Your task to perform on an android device: visit the assistant section in the google photos Image 0: 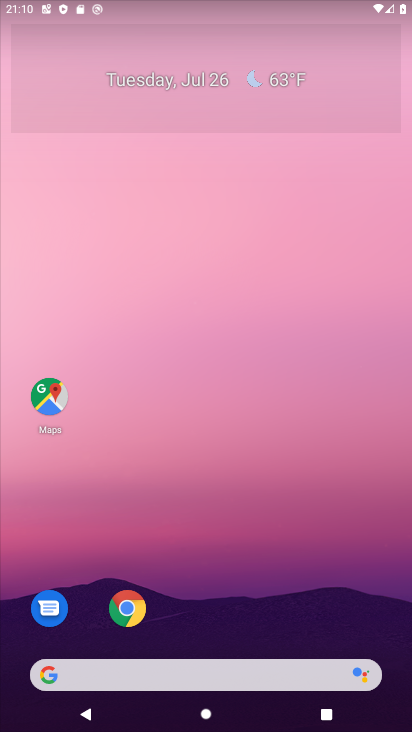
Step 0: drag from (144, 520) to (301, 214)
Your task to perform on an android device: visit the assistant section in the google photos Image 1: 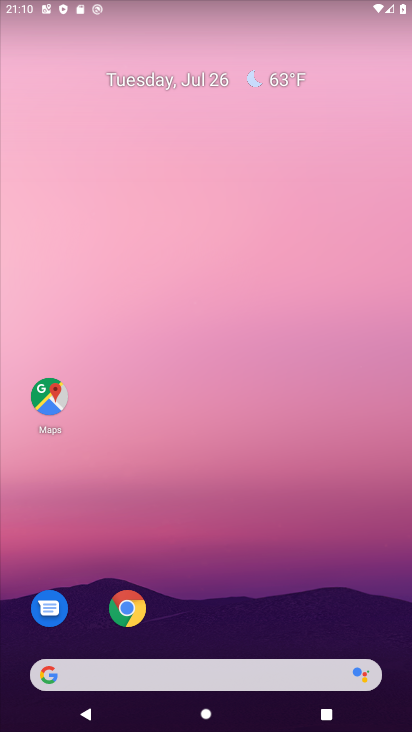
Step 1: drag from (74, 615) to (330, 141)
Your task to perform on an android device: visit the assistant section in the google photos Image 2: 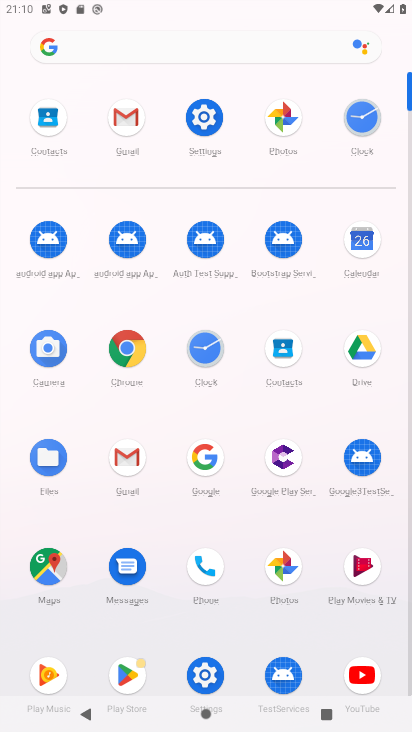
Step 2: click (274, 574)
Your task to perform on an android device: visit the assistant section in the google photos Image 3: 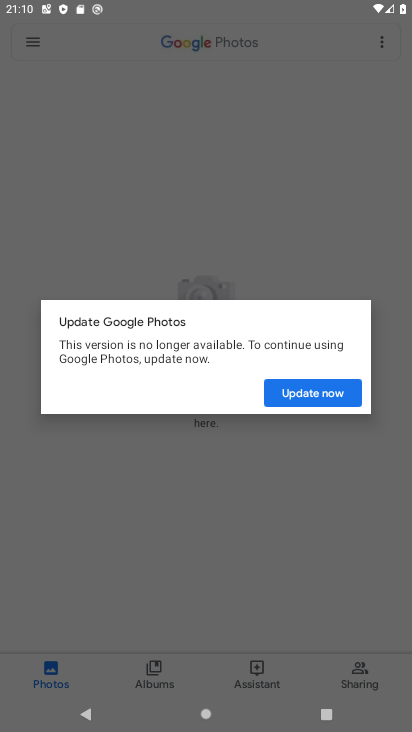
Step 3: click (262, 671)
Your task to perform on an android device: visit the assistant section in the google photos Image 4: 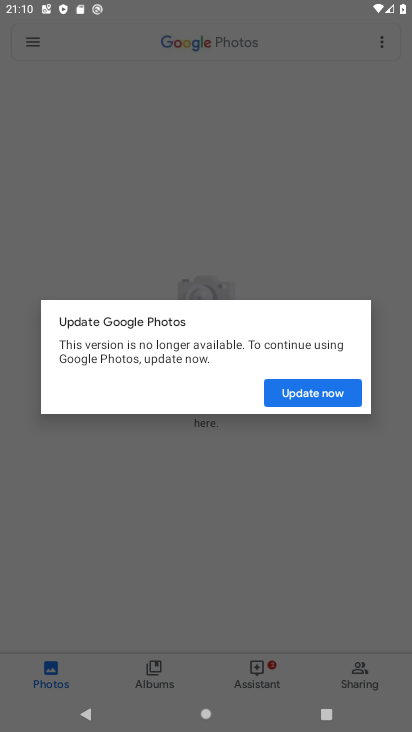
Step 4: click (253, 674)
Your task to perform on an android device: visit the assistant section in the google photos Image 5: 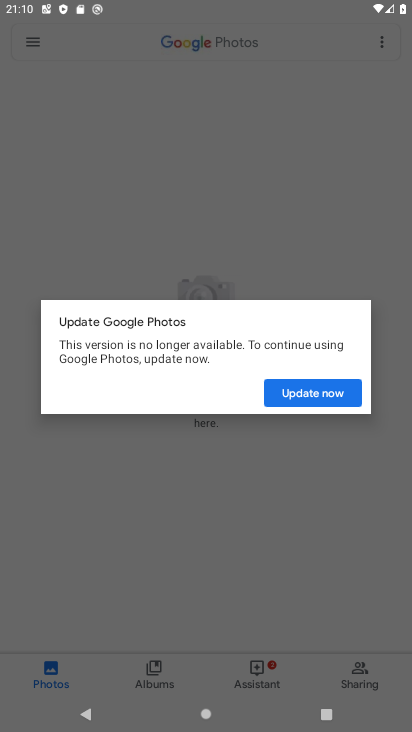
Step 5: click (301, 390)
Your task to perform on an android device: visit the assistant section in the google photos Image 6: 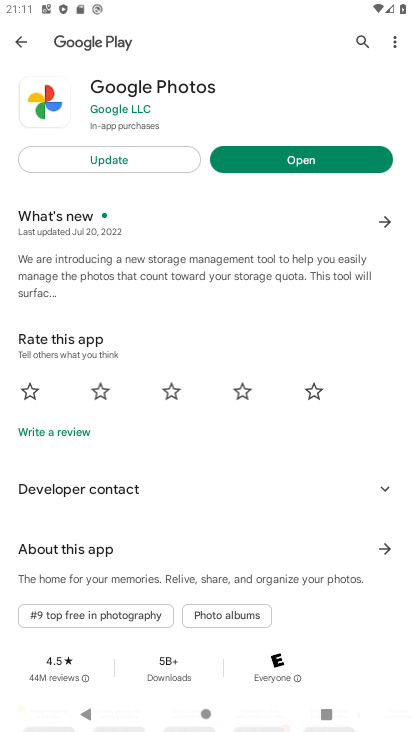
Step 6: click (256, 161)
Your task to perform on an android device: visit the assistant section in the google photos Image 7: 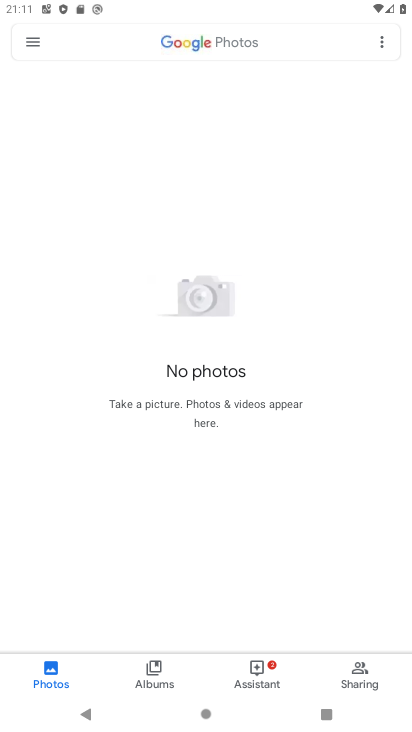
Step 7: click (267, 678)
Your task to perform on an android device: visit the assistant section in the google photos Image 8: 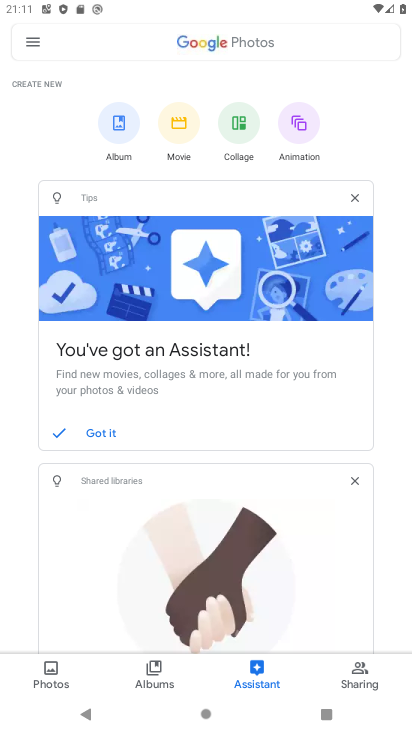
Step 8: task complete